Your task to perform on an android device: move an email to a new category in the gmail app Image 0: 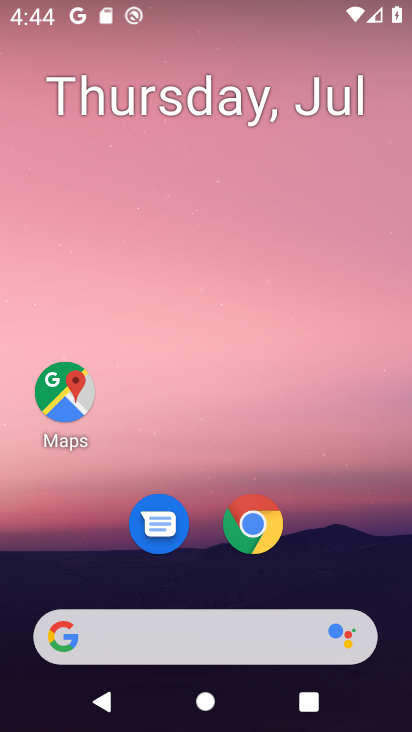
Step 0: drag from (206, 633) to (189, 296)
Your task to perform on an android device: move an email to a new category in the gmail app Image 1: 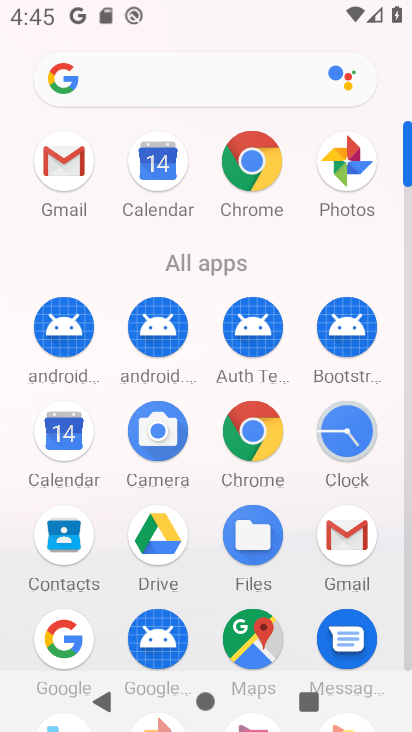
Step 1: click (366, 535)
Your task to perform on an android device: move an email to a new category in the gmail app Image 2: 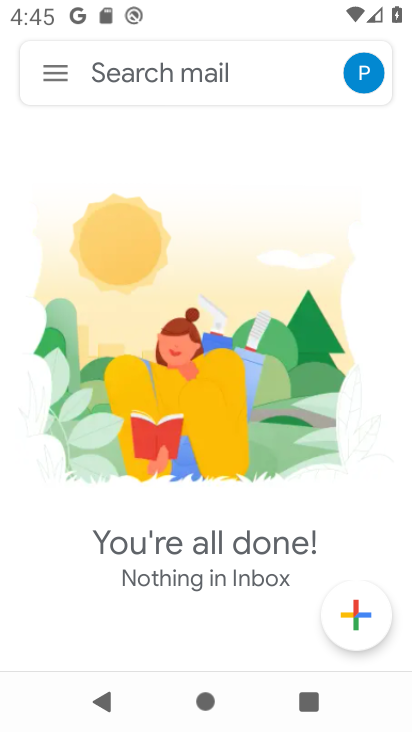
Step 2: click (46, 55)
Your task to perform on an android device: move an email to a new category in the gmail app Image 3: 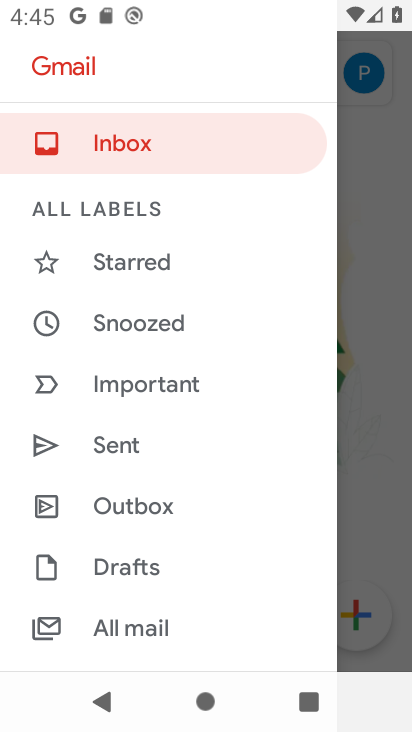
Step 3: click (130, 613)
Your task to perform on an android device: move an email to a new category in the gmail app Image 4: 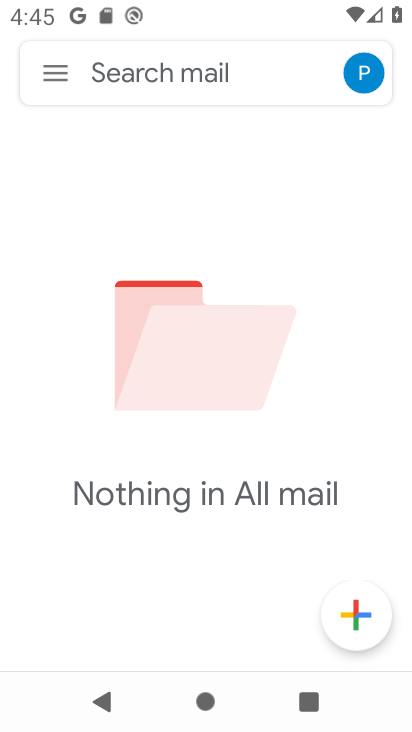
Step 4: task complete